Your task to perform on an android device: turn on wifi Image 0: 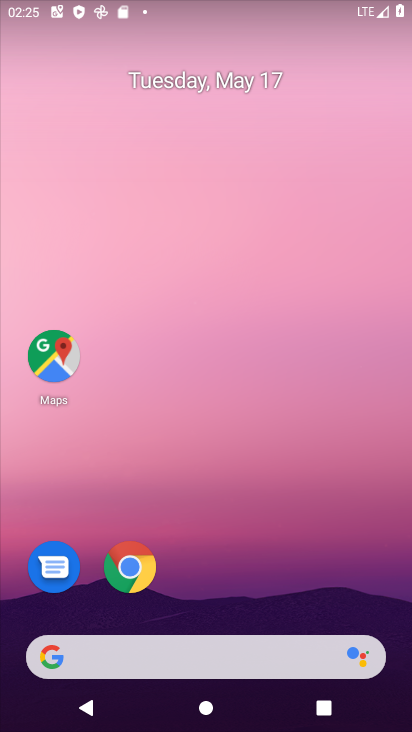
Step 0: drag from (396, 618) to (306, 176)
Your task to perform on an android device: turn on wifi Image 1: 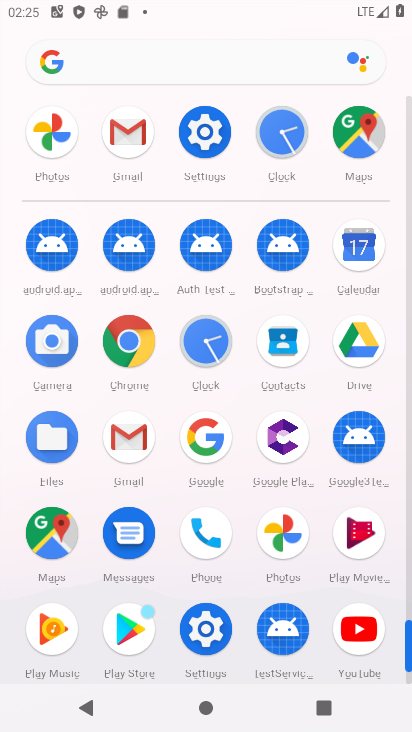
Step 1: click (199, 633)
Your task to perform on an android device: turn on wifi Image 2: 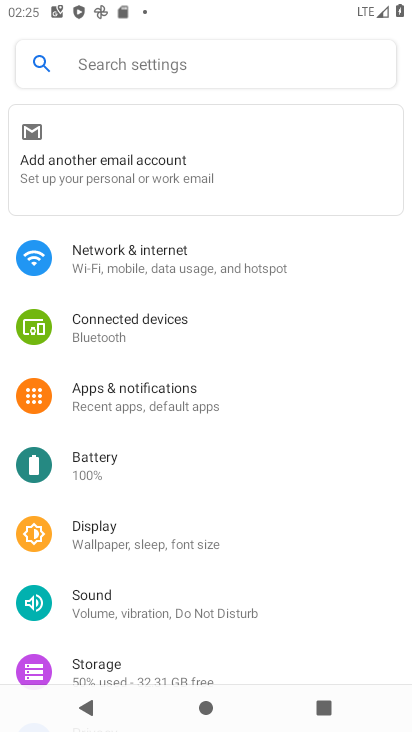
Step 2: click (129, 247)
Your task to perform on an android device: turn on wifi Image 3: 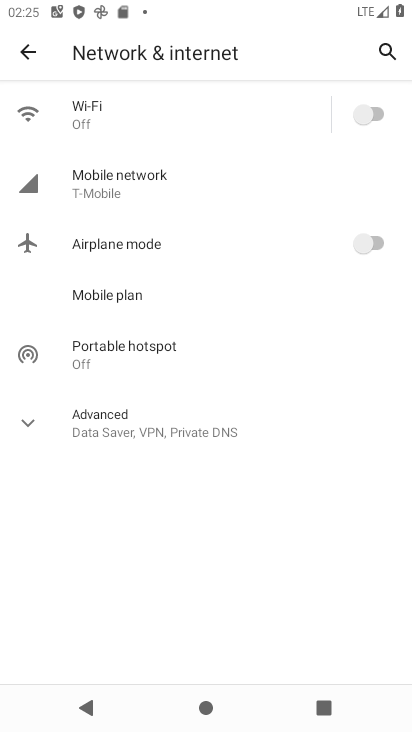
Step 3: click (375, 112)
Your task to perform on an android device: turn on wifi Image 4: 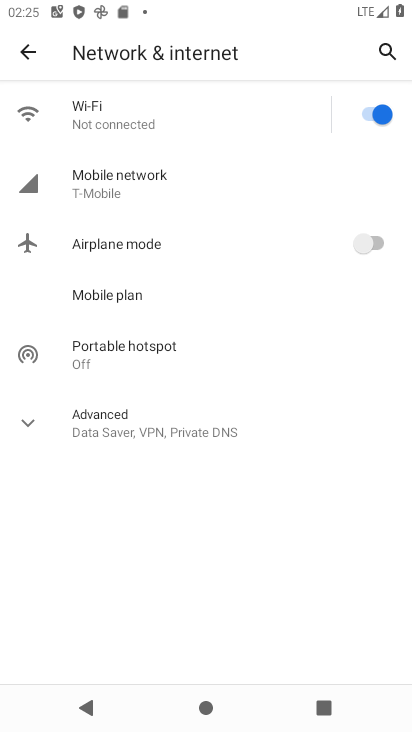
Step 4: task complete